Your task to perform on an android device: Go to Yahoo.com Image 0: 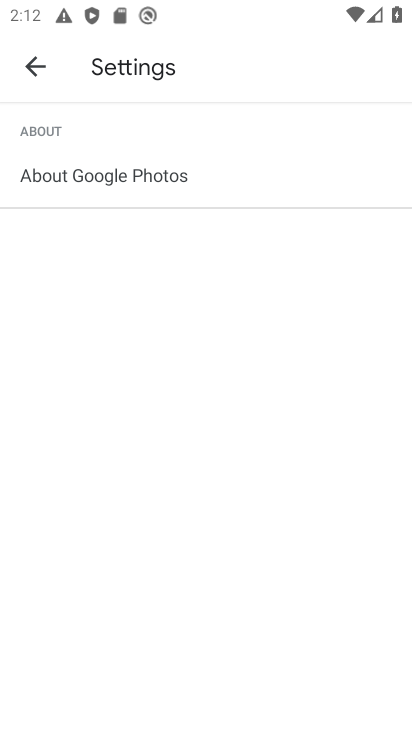
Step 0: press home button
Your task to perform on an android device: Go to Yahoo.com Image 1: 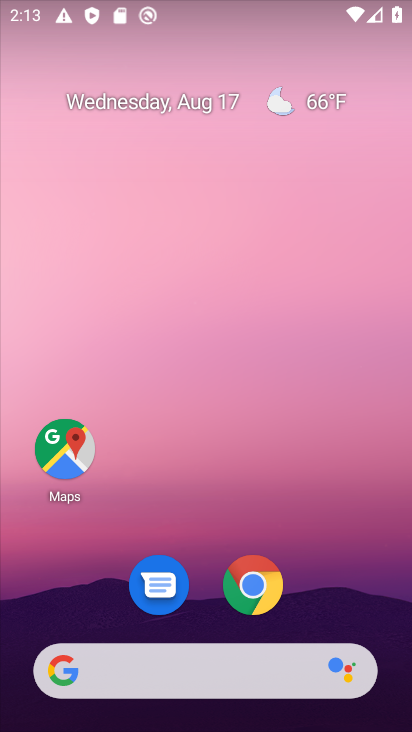
Step 1: drag from (211, 494) to (211, 42)
Your task to perform on an android device: Go to Yahoo.com Image 2: 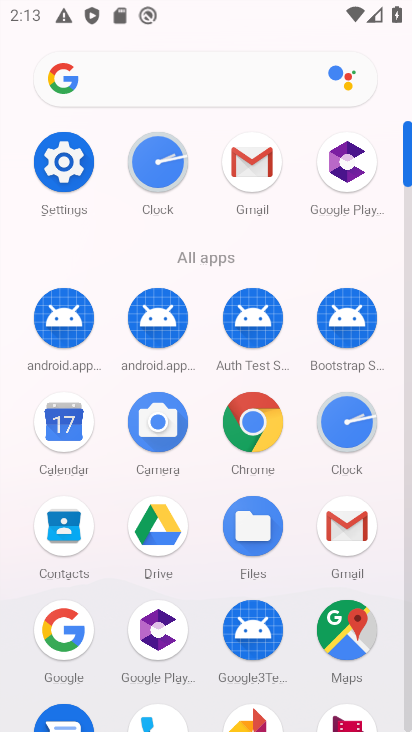
Step 2: drag from (210, 559) to (208, 59)
Your task to perform on an android device: Go to Yahoo.com Image 3: 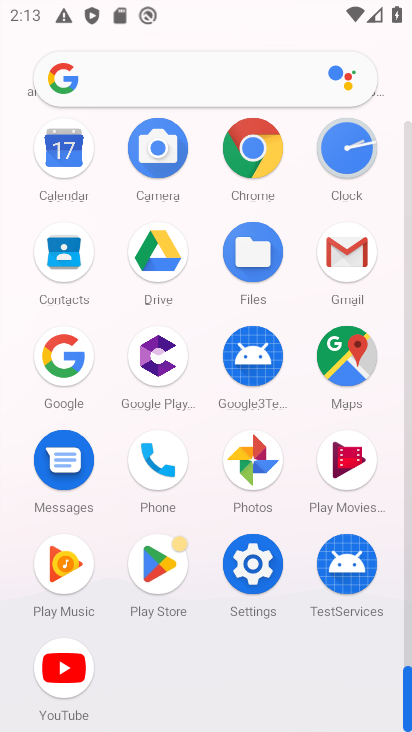
Step 3: press home button
Your task to perform on an android device: Go to Yahoo.com Image 4: 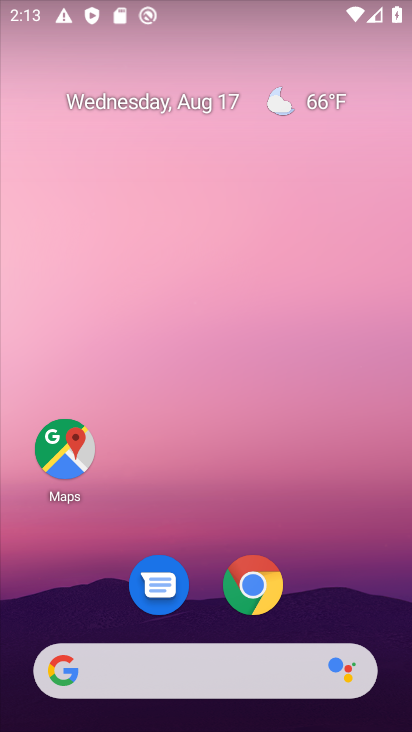
Step 4: click (229, 680)
Your task to perform on an android device: Go to Yahoo.com Image 5: 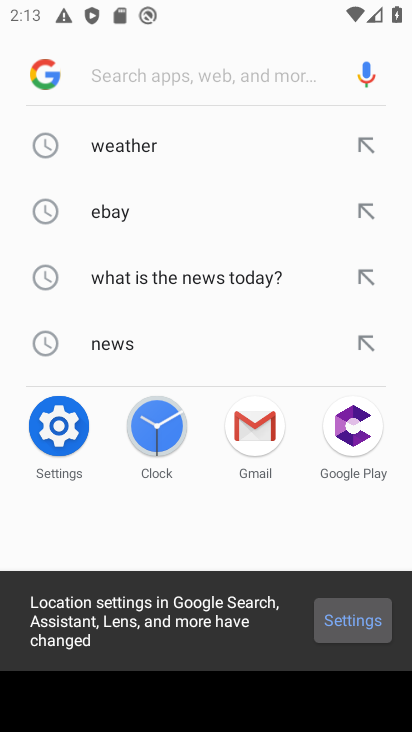
Step 5: click (180, 69)
Your task to perform on an android device: Go to Yahoo.com Image 6: 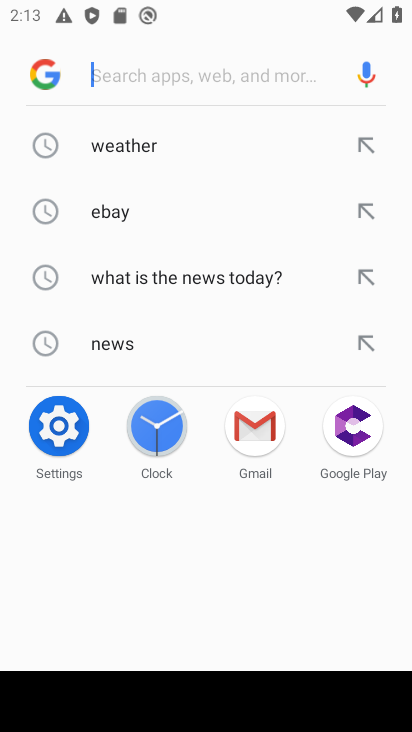
Step 6: type "yahoo.com"
Your task to perform on an android device: Go to Yahoo.com Image 7: 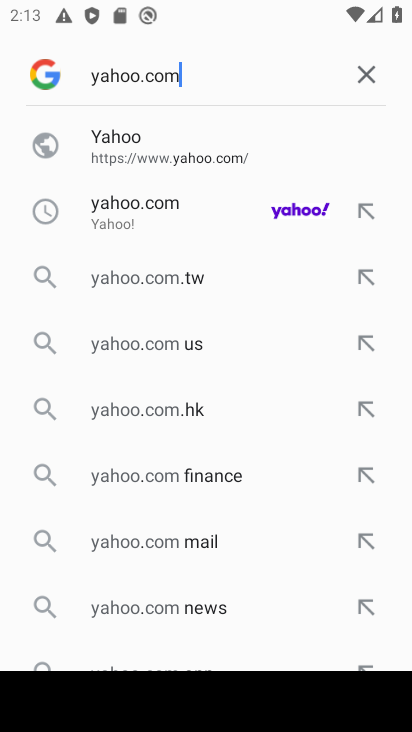
Step 7: click (167, 203)
Your task to perform on an android device: Go to Yahoo.com Image 8: 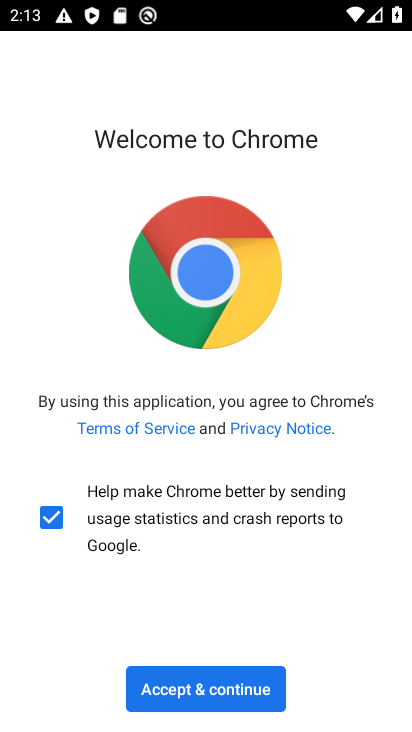
Step 8: click (254, 685)
Your task to perform on an android device: Go to Yahoo.com Image 9: 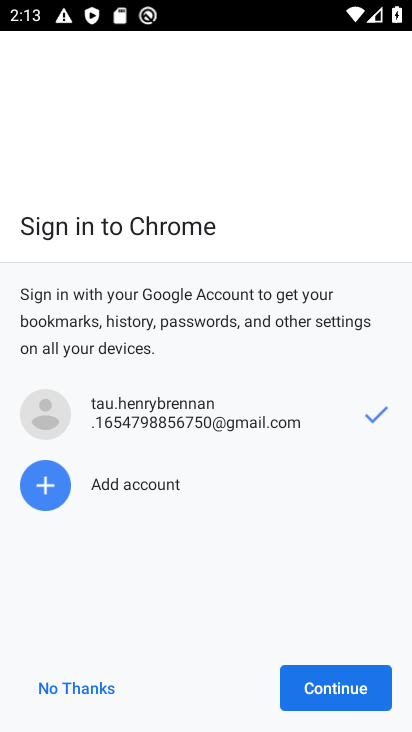
Step 9: click (321, 692)
Your task to perform on an android device: Go to Yahoo.com Image 10: 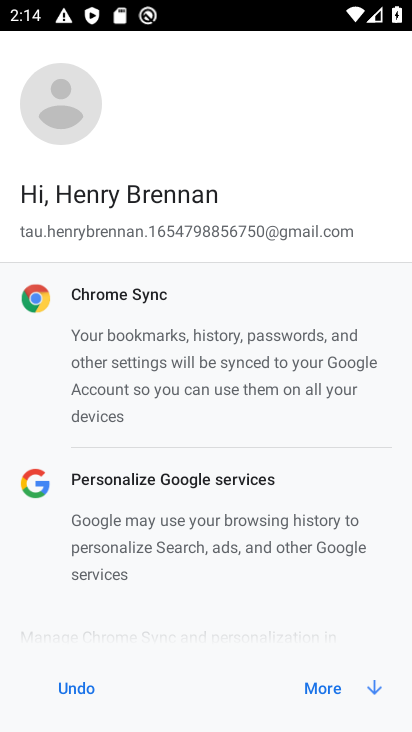
Step 10: click (327, 682)
Your task to perform on an android device: Go to Yahoo.com Image 11: 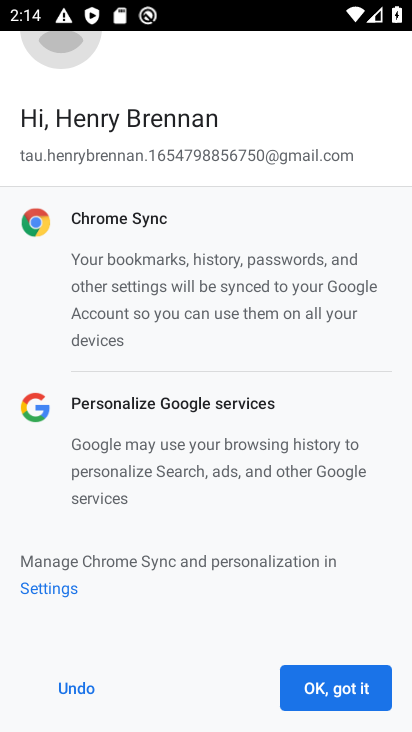
Step 11: click (334, 676)
Your task to perform on an android device: Go to Yahoo.com Image 12: 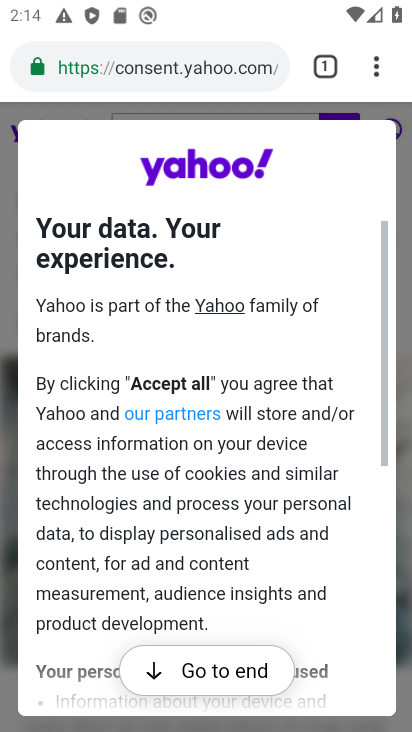
Step 12: click (241, 671)
Your task to perform on an android device: Go to Yahoo.com Image 13: 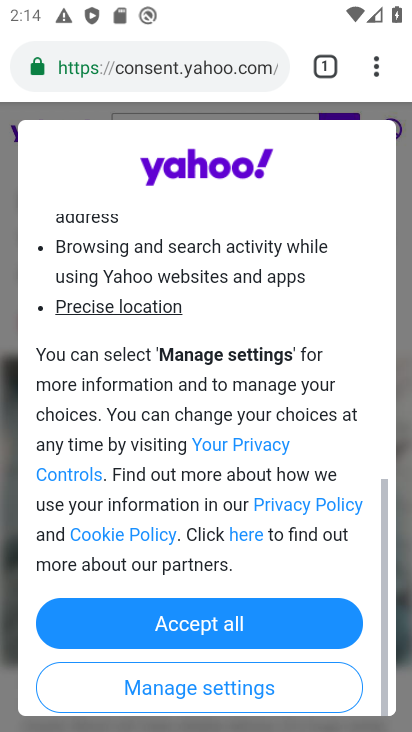
Step 13: click (262, 630)
Your task to perform on an android device: Go to Yahoo.com Image 14: 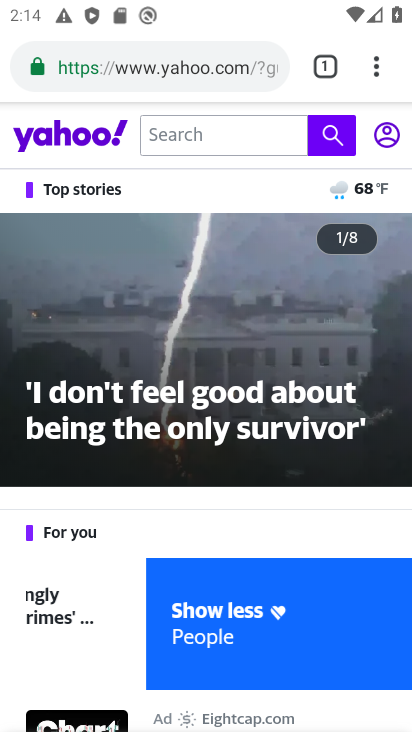
Step 14: task complete